Your task to perform on an android device: change timer sound Image 0: 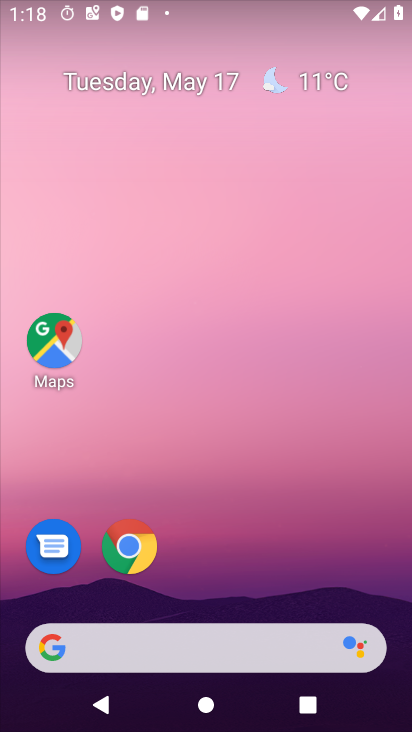
Step 0: drag from (206, 646) to (323, 83)
Your task to perform on an android device: change timer sound Image 1: 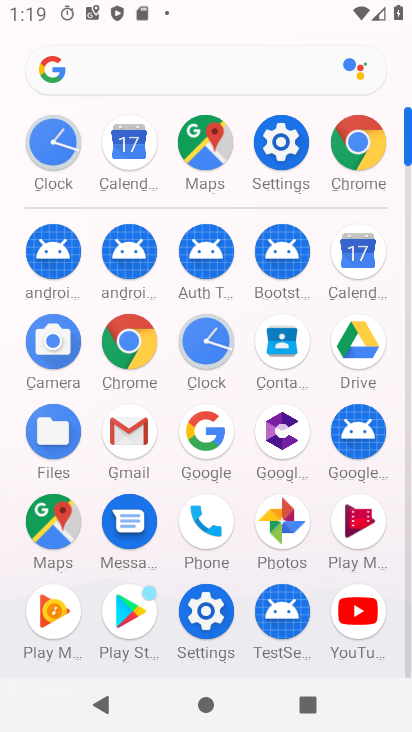
Step 1: click (213, 344)
Your task to perform on an android device: change timer sound Image 2: 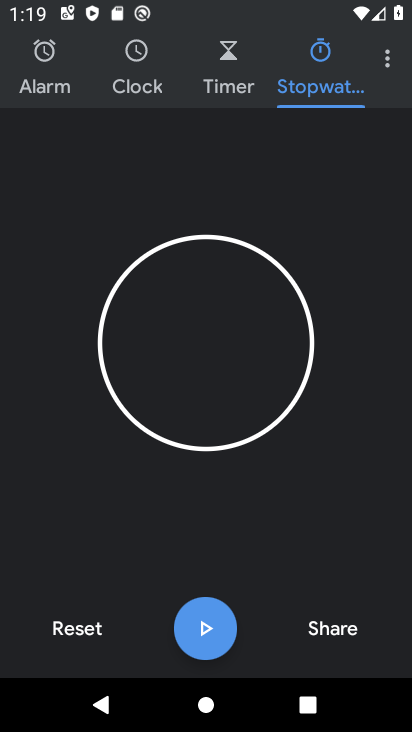
Step 2: click (389, 65)
Your task to perform on an android device: change timer sound Image 3: 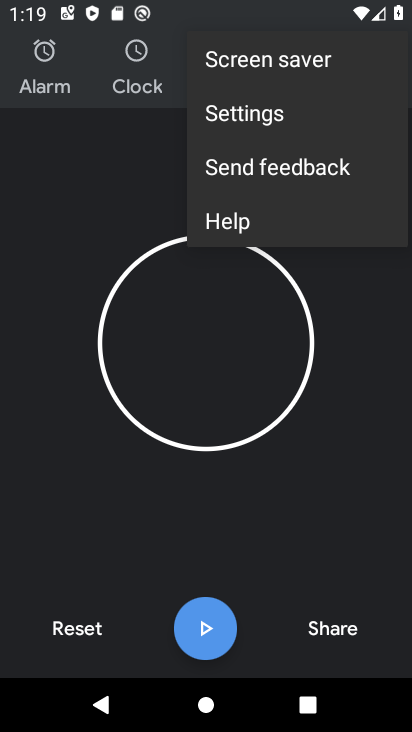
Step 3: click (253, 119)
Your task to perform on an android device: change timer sound Image 4: 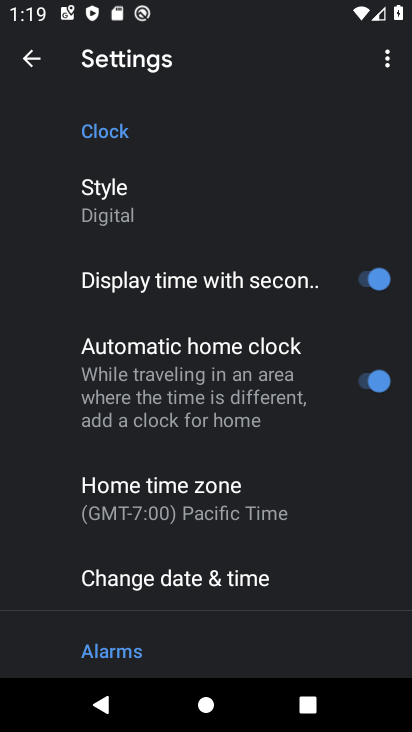
Step 4: drag from (212, 561) to (384, 6)
Your task to perform on an android device: change timer sound Image 5: 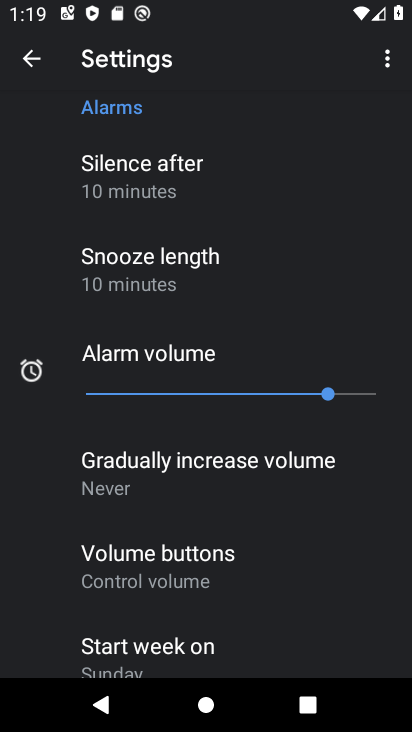
Step 5: drag from (207, 580) to (290, 249)
Your task to perform on an android device: change timer sound Image 6: 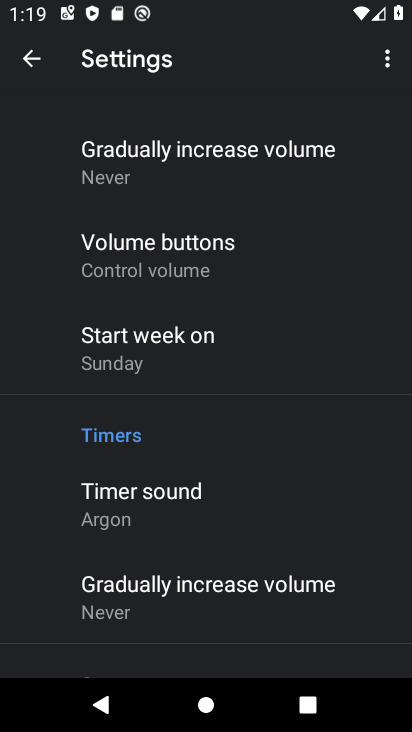
Step 6: click (159, 495)
Your task to perform on an android device: change timer sound Image 7: 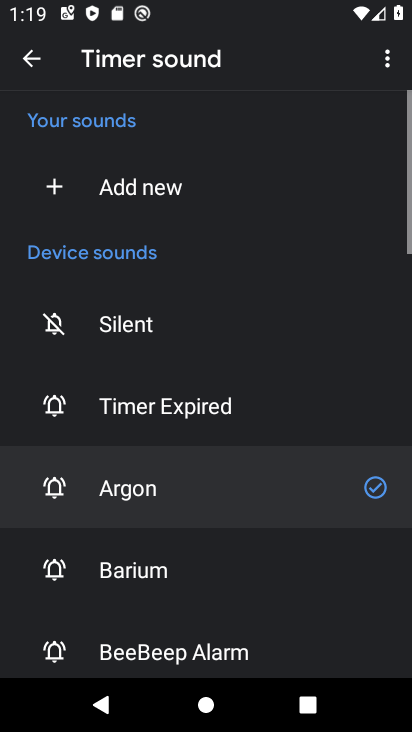
Step 7: click (151, 329)
Your task to perform on an android device: change timer sound Image 8: 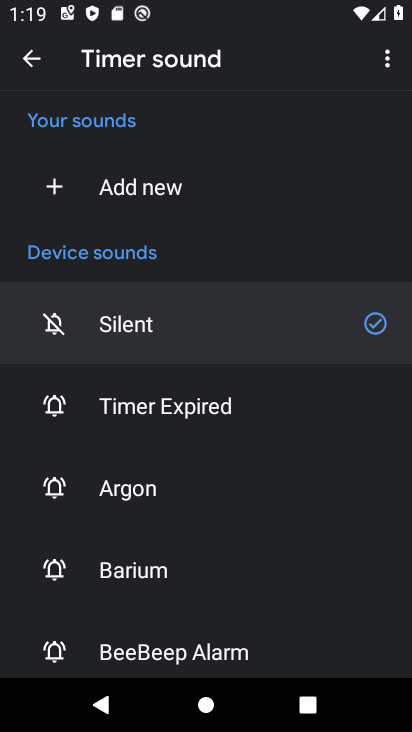
Step 8: task complete